Your task to perform on an android device: Search for sushi restaurants on Maps Image 0: 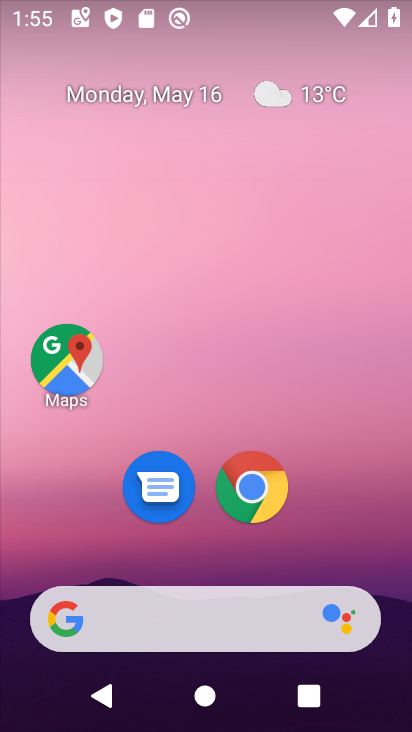
Step 0: drag from (375, 561) to (198, 63)
Your task to perform on an android device: Search for sushi restaurants on Maps Image 1: 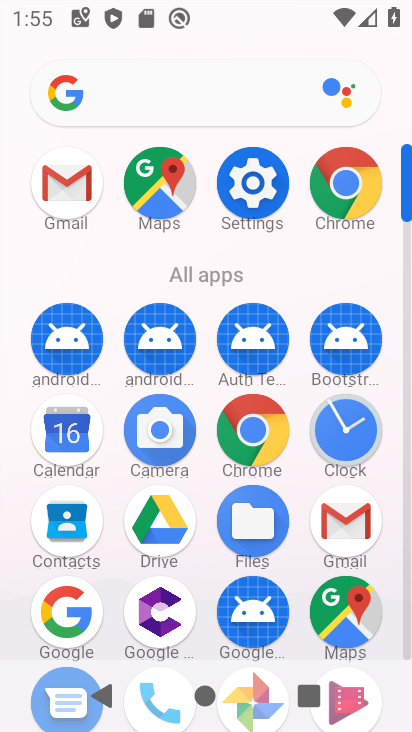
Step 1: drag from (14, 585) to (20, 285)
Your task to perform on an android device: Search for sushi restaurants on Maps Image 2: 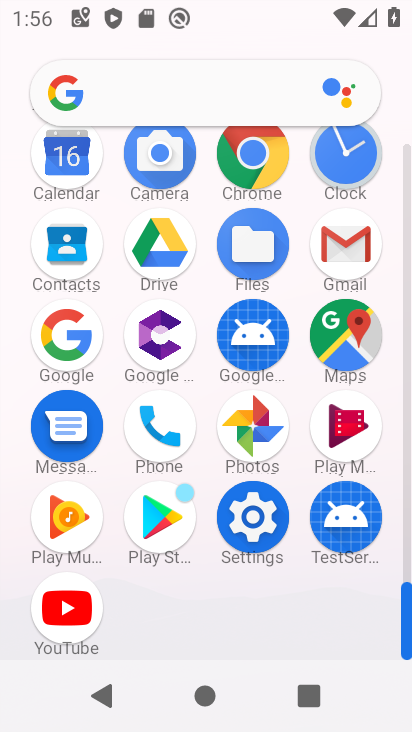
Step 2: click (348, 332)
Your task to perform on an android device: Search for sushi restaurants on Maps Image 3: 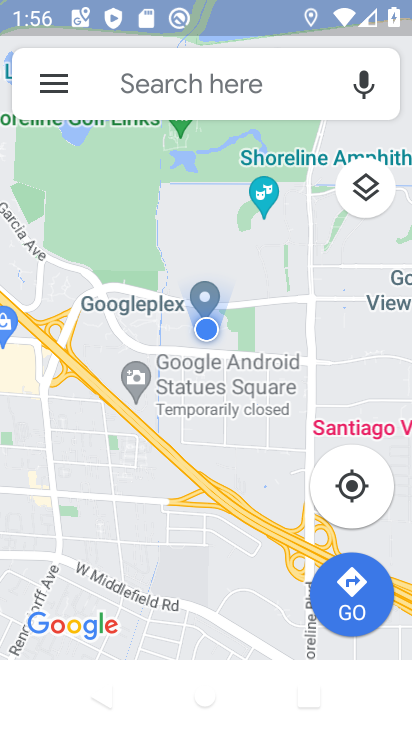
Step 3: click (269, 78)
Your task to perform on an android device: Search for sushi restaurants on Maps Image 4: 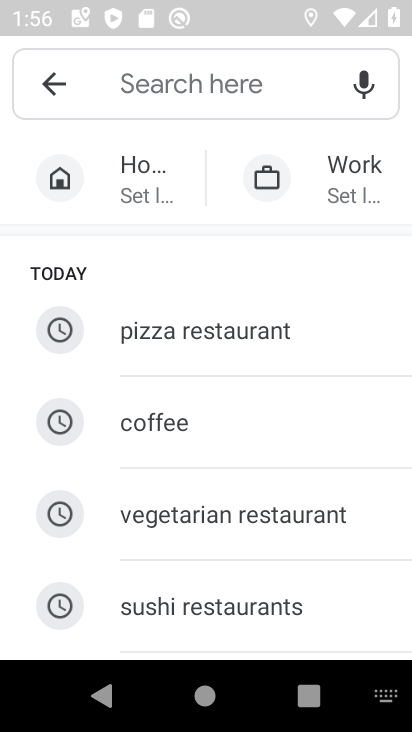
Step 4: click (226, 596)
Your task to perform on an android device: Search for sushi restaurants on Maps Image 5: 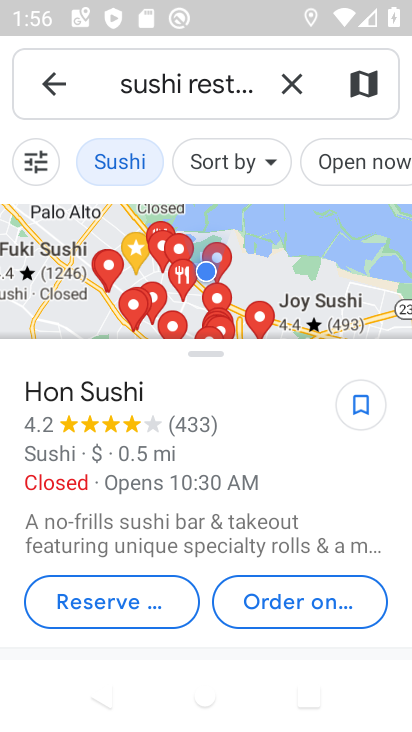
Step 5: task complete